Your task to perform on an android device: uninstall "Indeed Job Search" Image 0: 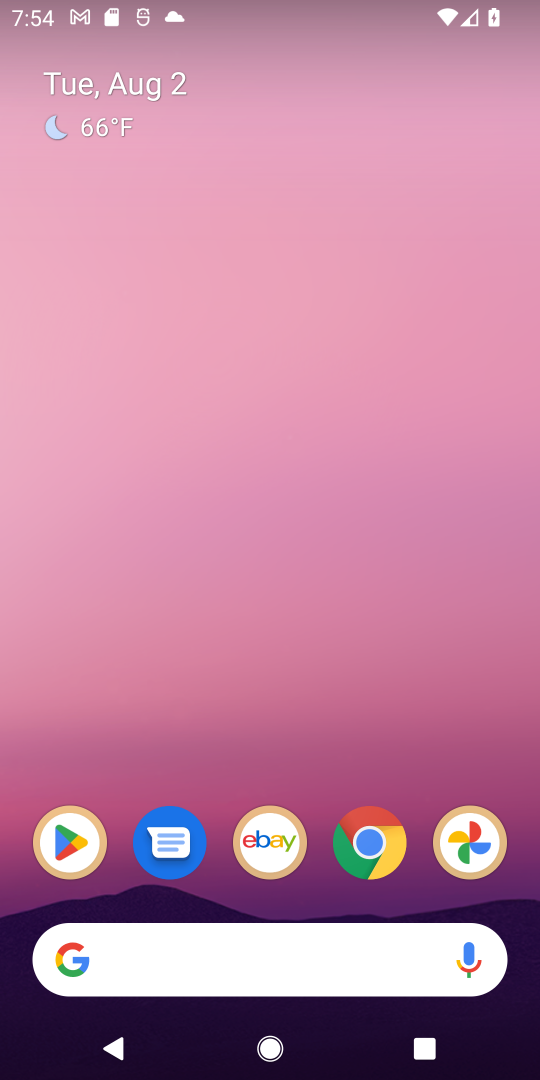
Step 0: click (84, 850)
Your task to perform on an android device: uninstall "Indeed Job Search" Image 1: 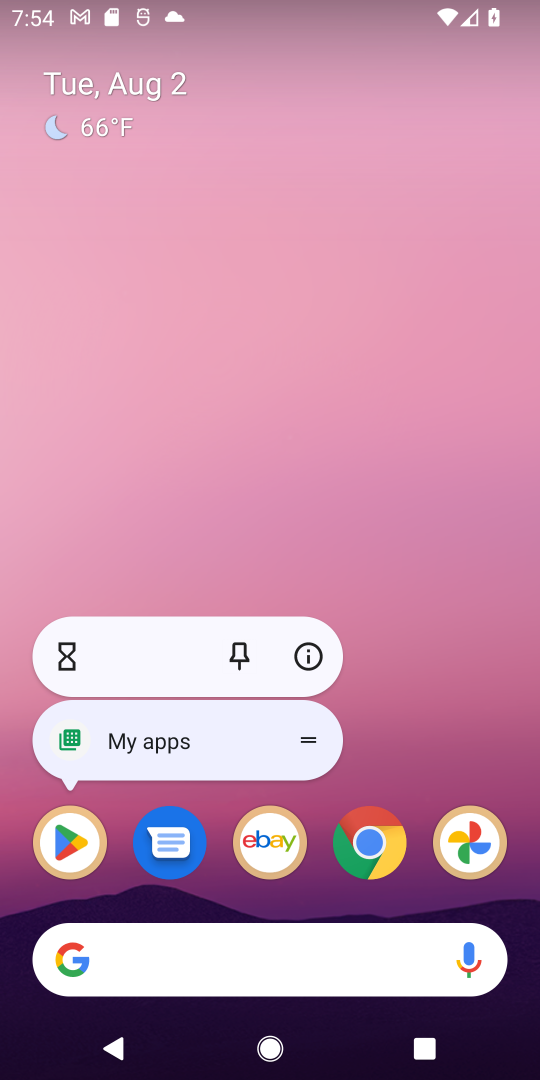
Step 1: click (82, 847)
Your task to perform on an android device: uninstall "Indeed Job Search" Image 2: 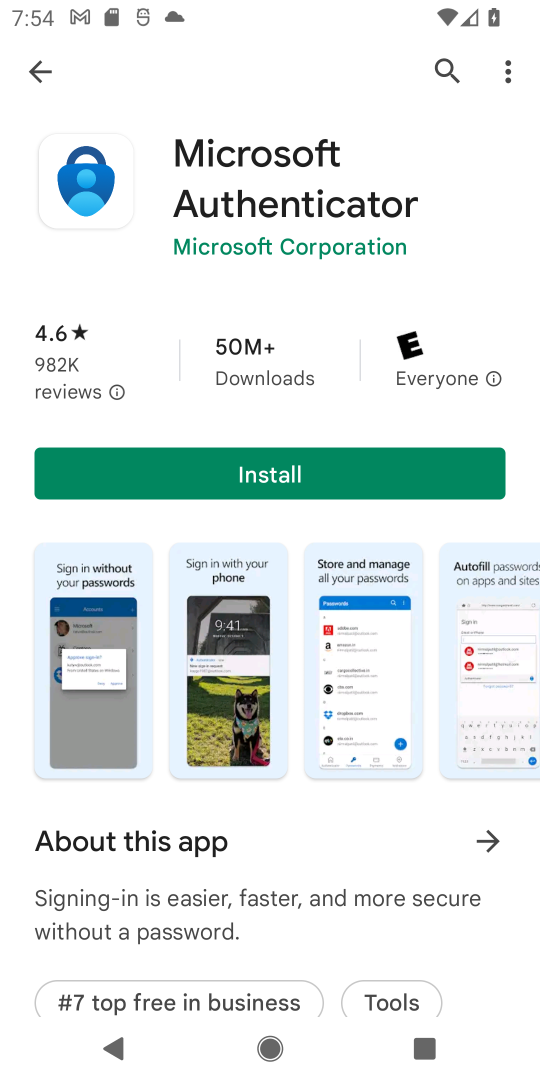
Step 2: click (31, 64)
Your task to perform on an android device: uninstall "Indeed Job Search" Image 3: 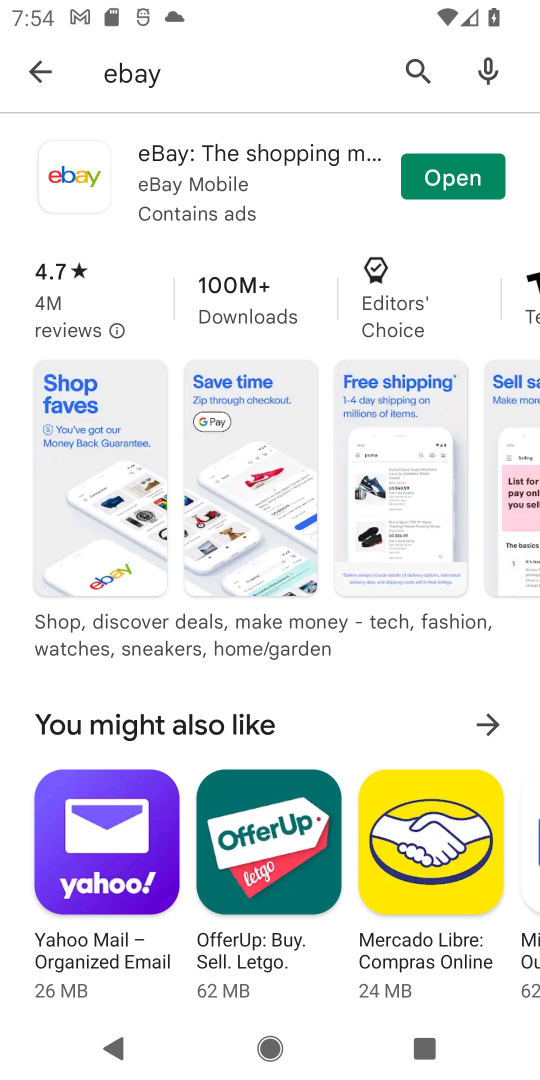
Step 3: click (202, 63)
Your task to perform on an android device: uninstall "Indeed Job Search" Image 4: 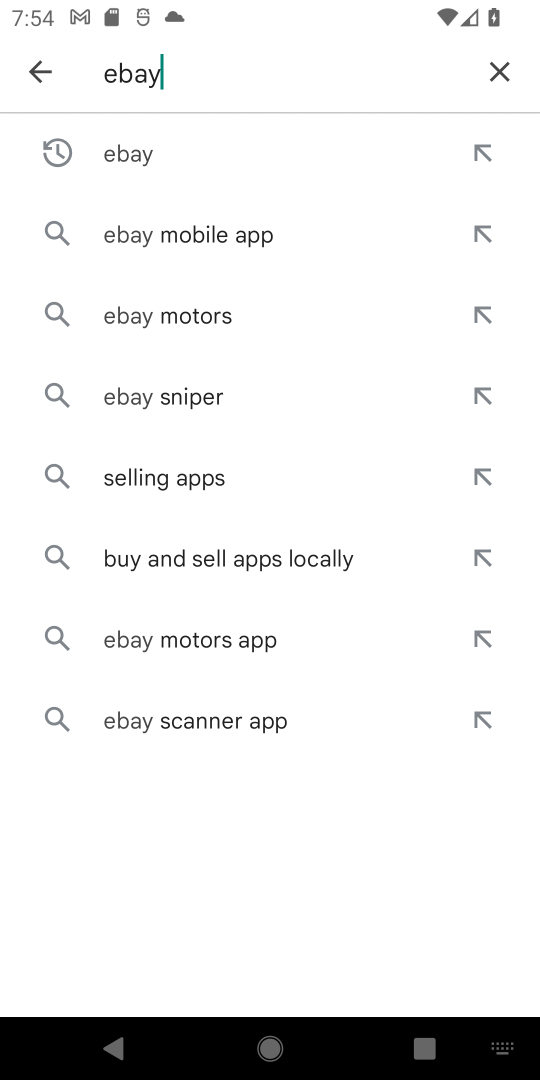
Step 4: click (497, 65)
Your task to perform on an android device: uninstall "Indeed Job Search" Image 5: 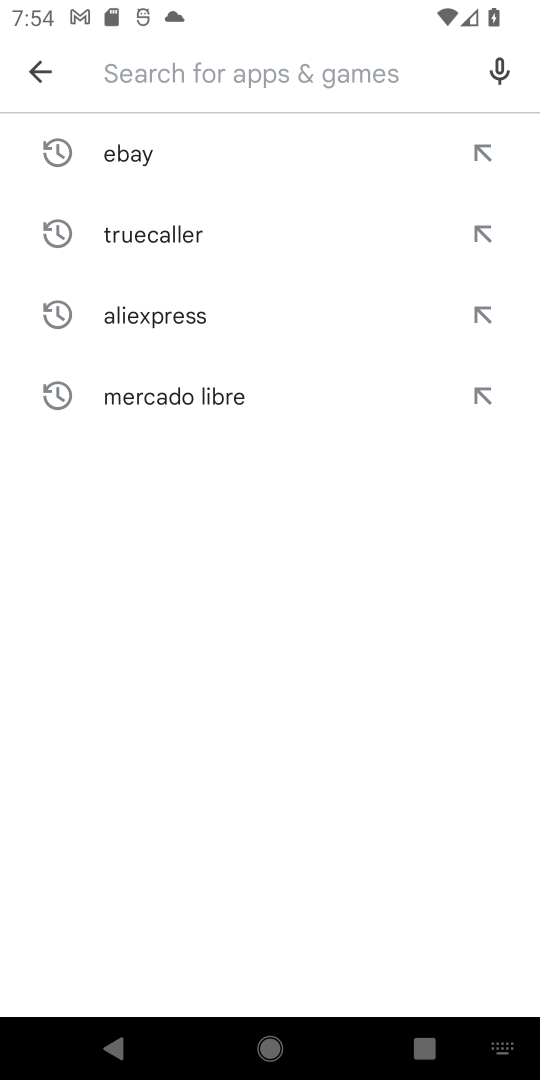
Step 5: type "Indeed "
Your task to perform on an android device: uninstall "Indeed Job Search" Image 6: 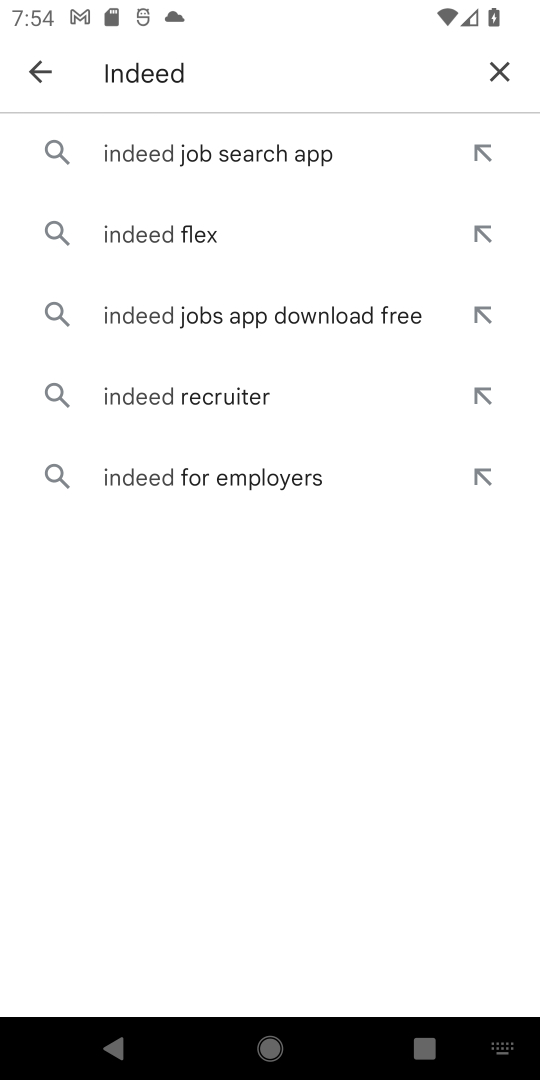
Step 6: click (239, 162)
Your task to perform on an android device: uninstall "Indeed Job Search" Image 7: 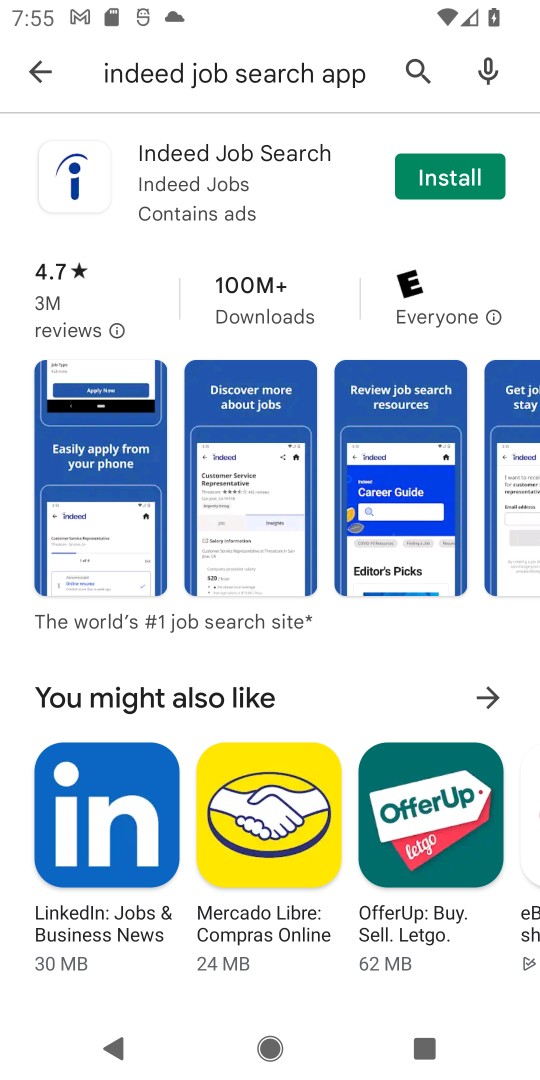
Step 7: task complete